Your task to perform on an android device: stop showing notifications on the lock screen Image 0: 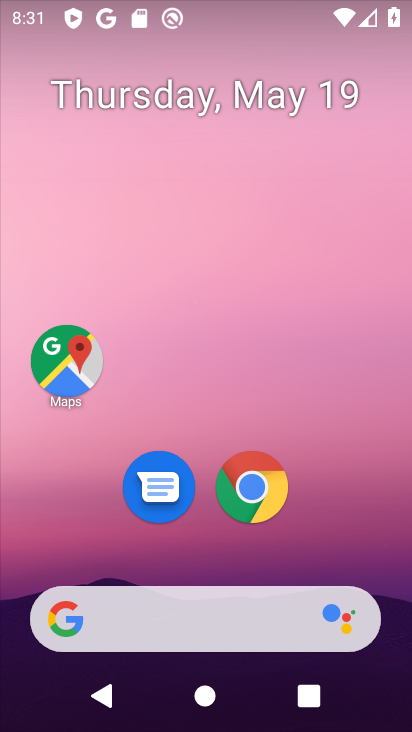
Step 0: drag from (241, 564) to (153, 54)
Your task to perform on an android device: stop showing notifications on the lock screen Image 1: 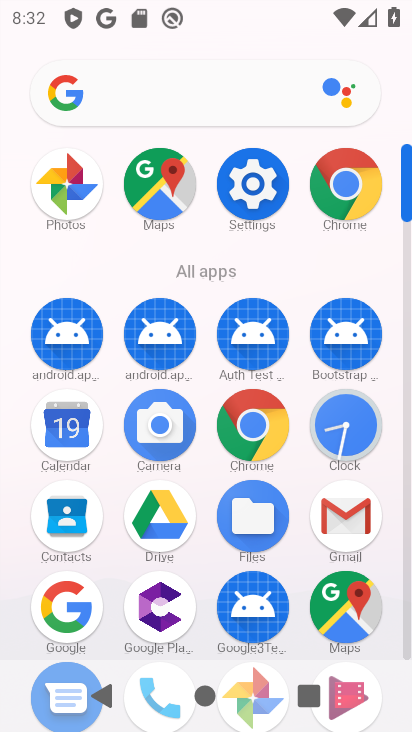
Step 1: click (247, 199)
Your task to perform on an android device: stop showing notifications on the lock screen Image 2: 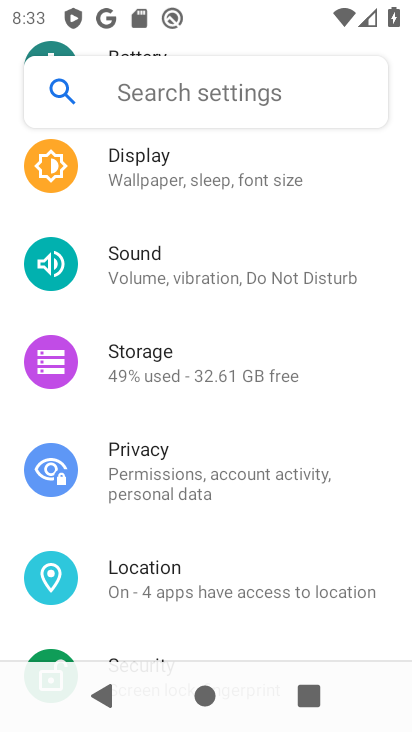
Step 2: drag from (247, 198) to (210, 666)
Your task to perform on an android device: stop showing notifications on the lock screen Image 3: 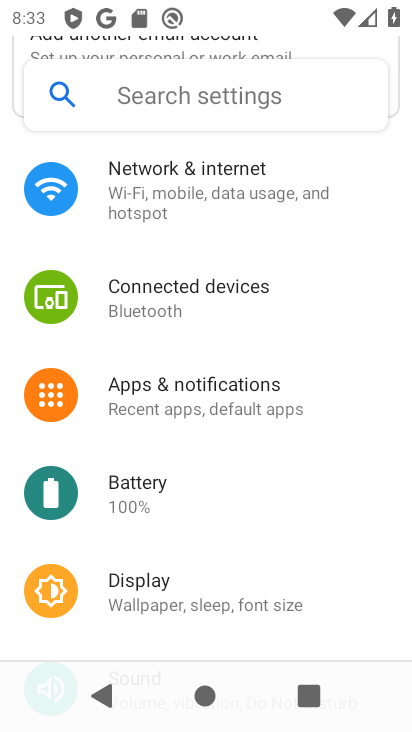
Step 3: click (240, 380)
Your task to perform on an android device: stop showing notifications on the lock screen Image 4: 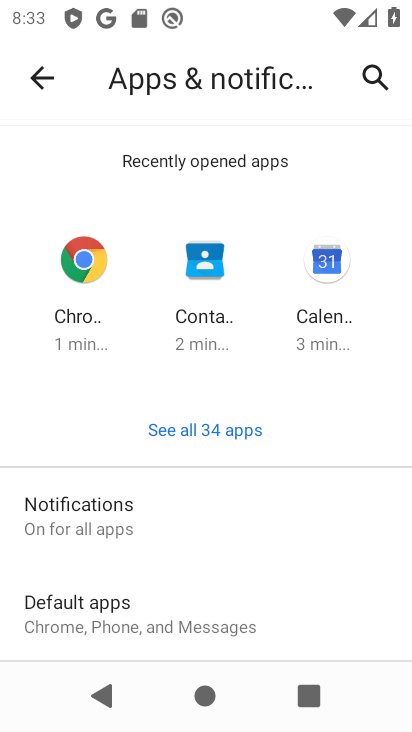
Step 4: drag from (119, 516) to (70, 44)
Your task to perform on an android device: stop showing notifications on the lock screen Image 5: 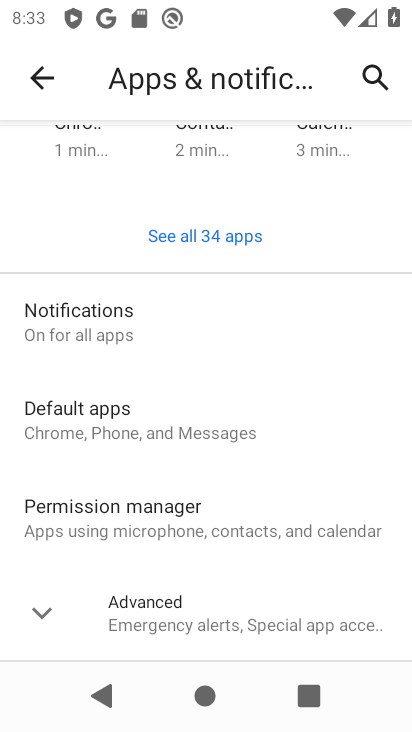
Step 5: click (139, 589)
Your task to perform on an android device: stop showing notifications on the lock screen Image 6: 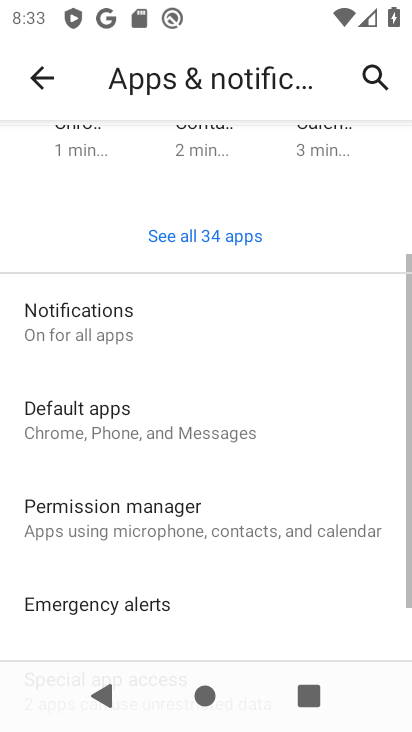
Step 6: click (108, 332)
Your task to perform on an android device: stop showing notifications on the lock screen Image 7: 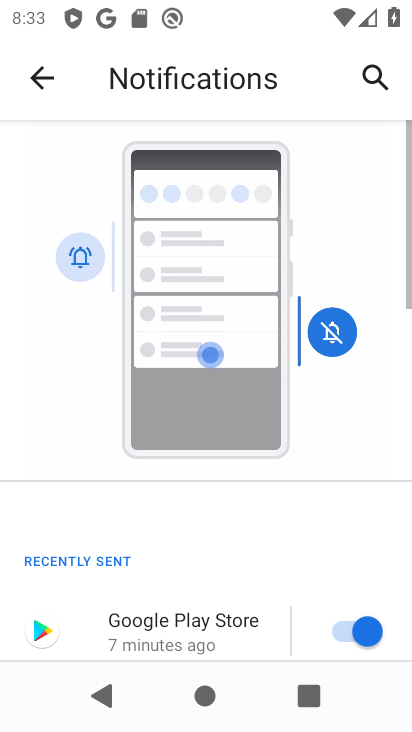
Step 7: drag from (216, 559) to (148, 189)
Your task to perform on an android device: stop showing notifications on the lock screen Image 8: 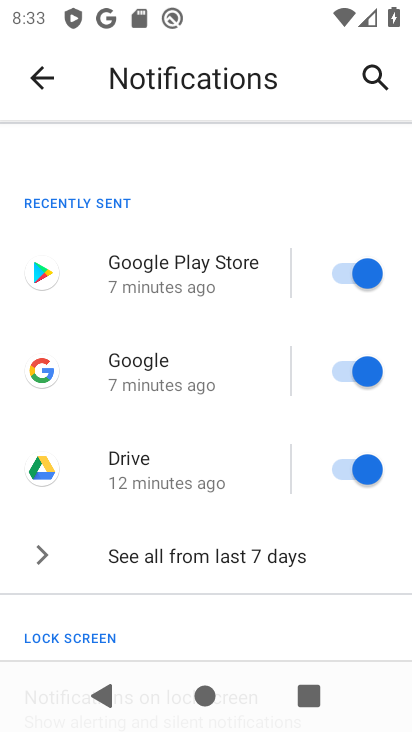
Step 8: drag from (142, 597) to (79, 169)
Your task to perform on an android device: stop showing notifications on the lock screen Image 9: 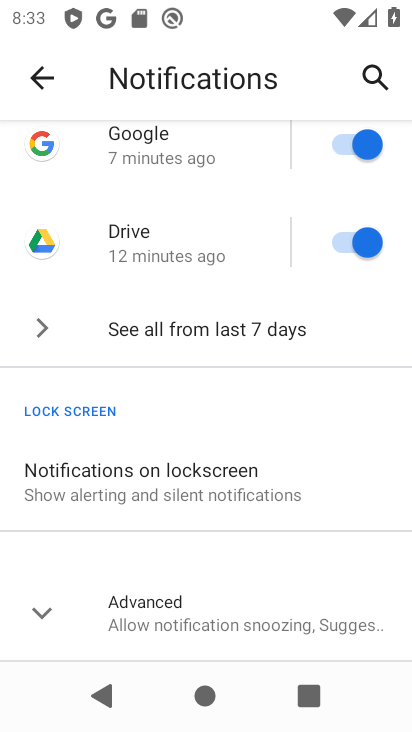
Step 9: click (212, 492)
Your task to perform on an android device: stop showing notifications on the lock screen Image 10: 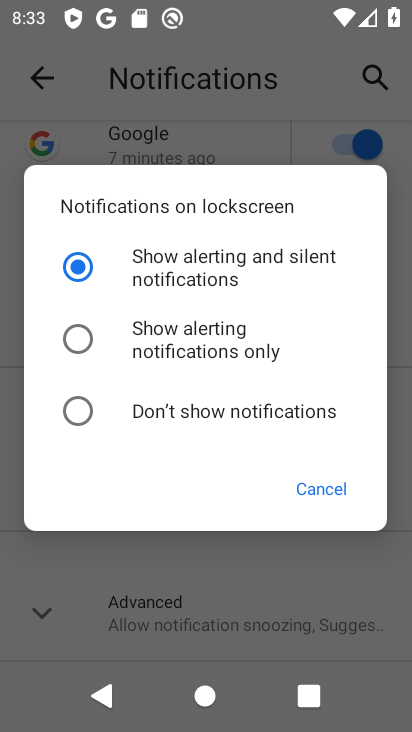
Step 10: click (182, 411)
Your task to perform on an android device: stop showing notifications on the lock screen Image 11: 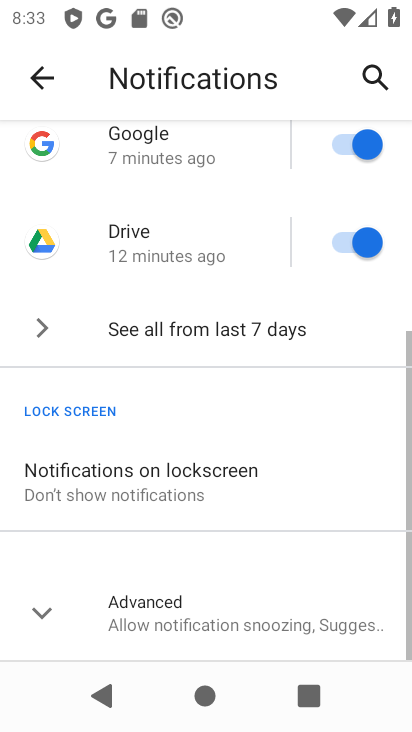
Step 11: task complete